Your task to perform on an android device: change your default location settings in chrome Image 0: 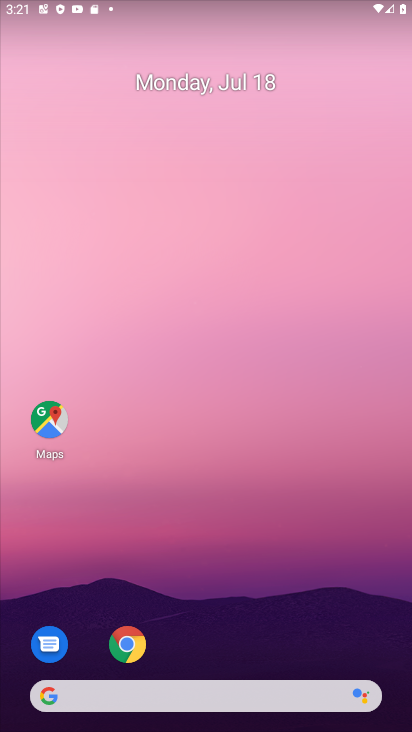
Step 0: click (127, 643)
Your task to perform on an android device: change your default location settings in chrome Image 1: 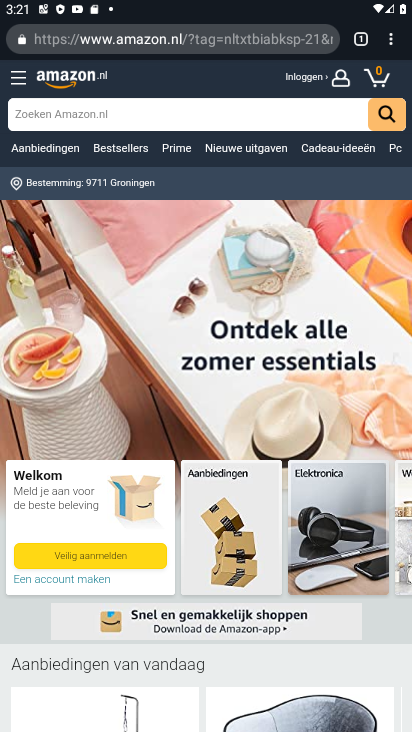
Step 1: click (391, 47)
Your task to perform on an android device: change your default location settings in chrome Image 2: 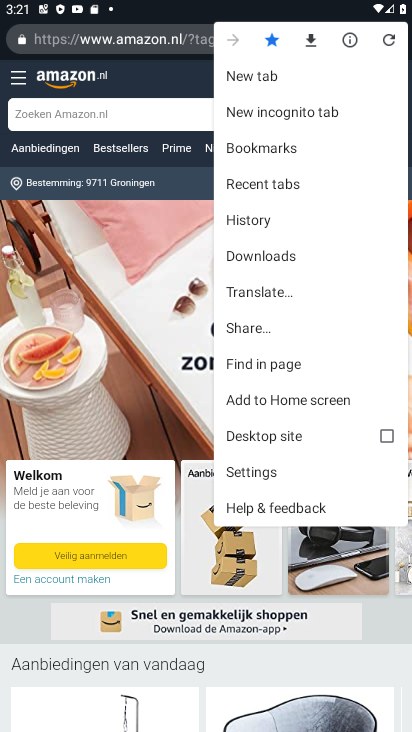
Step 2: click (255, 471)
Your task to perform on an android device: change your default location settings in chrome Image 3: 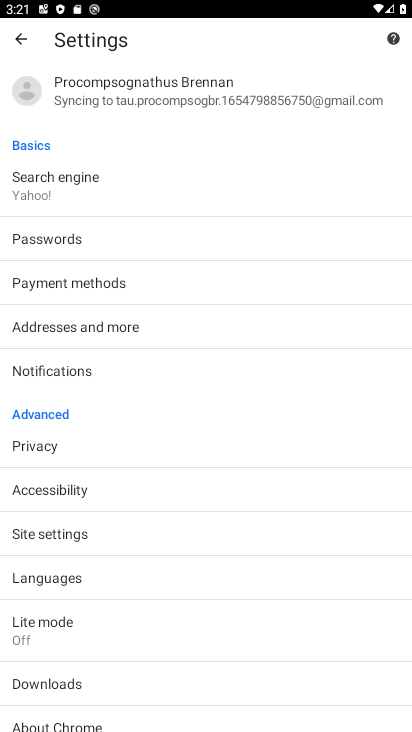
Step 3: click (62, 537)
Your task to perform on an android device: change your default location settings in chrome Image 4: 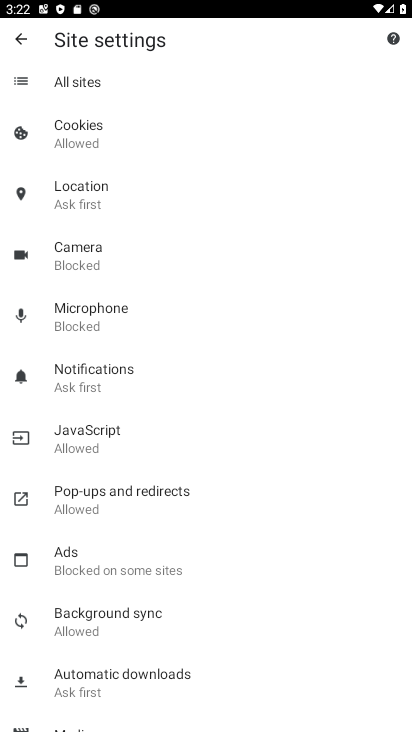
Step 4: click (71, 194)
Your task to perform on an android device: change your default location settings in chrome Image 5: 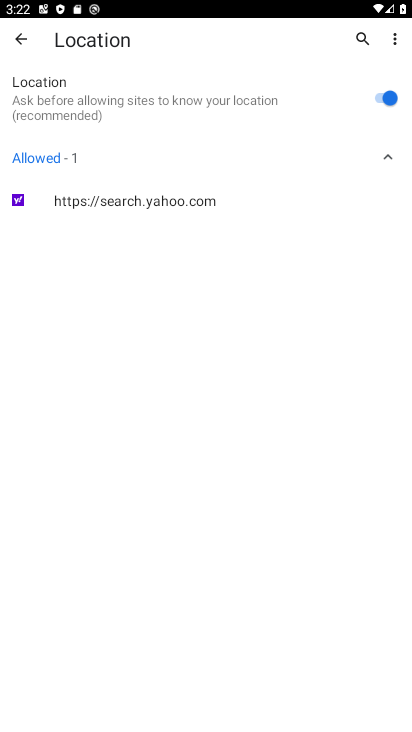
Step 5: click (377, 96)
Your task to perform on an android device: change your default location settings in chrome Image 6: 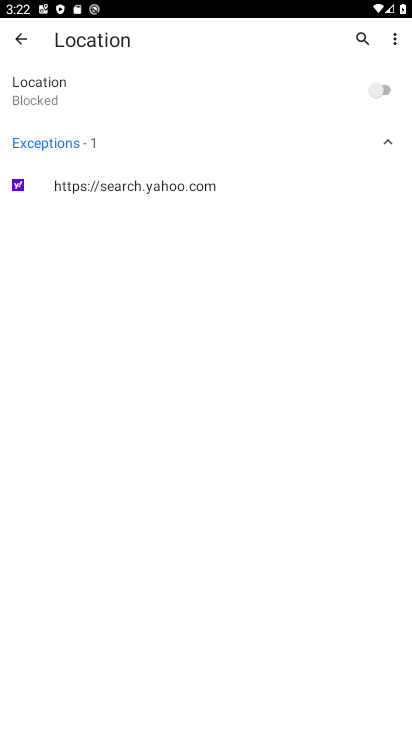
Step 6: task complete